Your task to perform on an android device: open a bookmark in the chrome app Image 0: 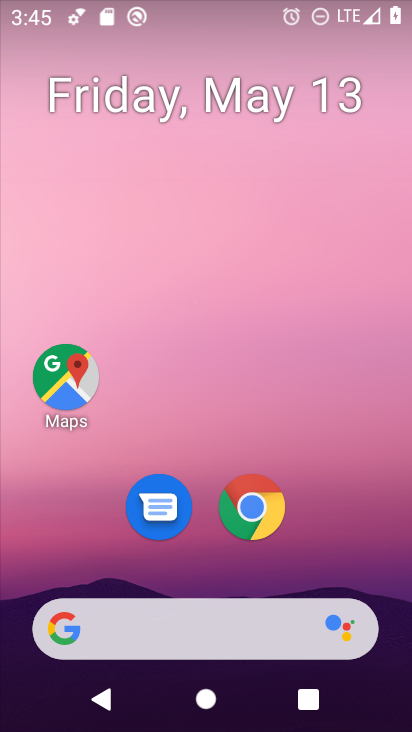
Step 0: click (274, 500)
Your task to perform on an android device: open a bookmark in the chrome app Image 1: 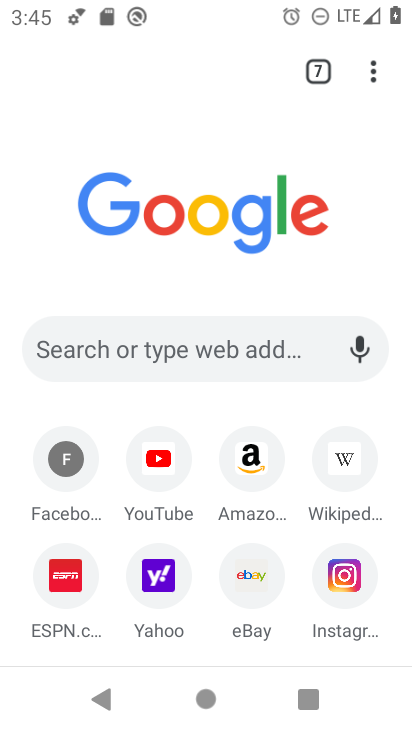
Step 1: click (386, 120)
Your task to perform on an android device: open a bookmark in the chrome app Image 2: 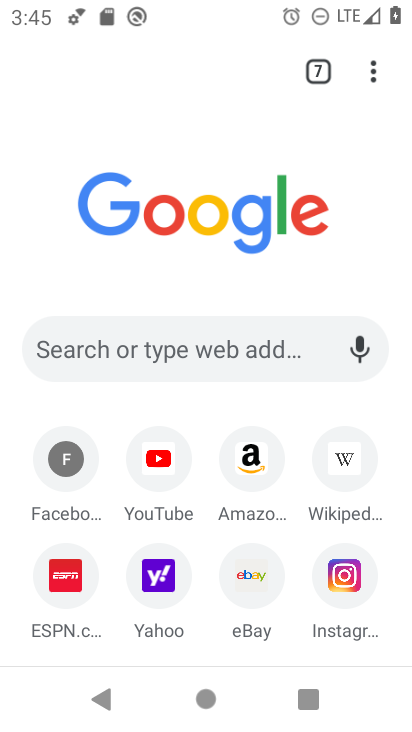
Step 2: click (368, 68)
Your task to perform on an android device: open a bookmark in the chrome app Image 3: 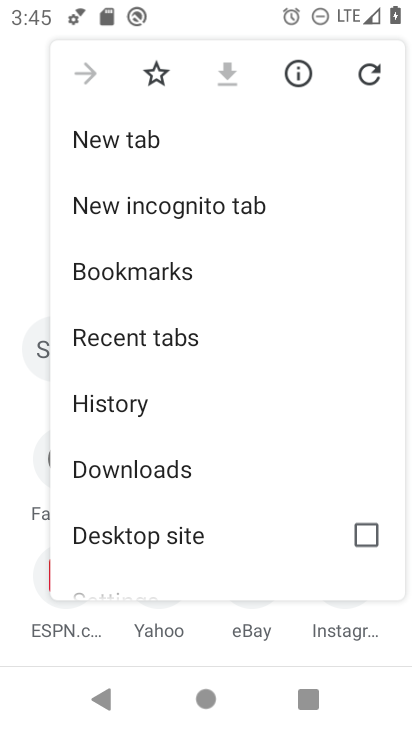
Step 3: click (199, 270)
Your task to perform on an android device: open a bookmark in the chrome app Image 4: 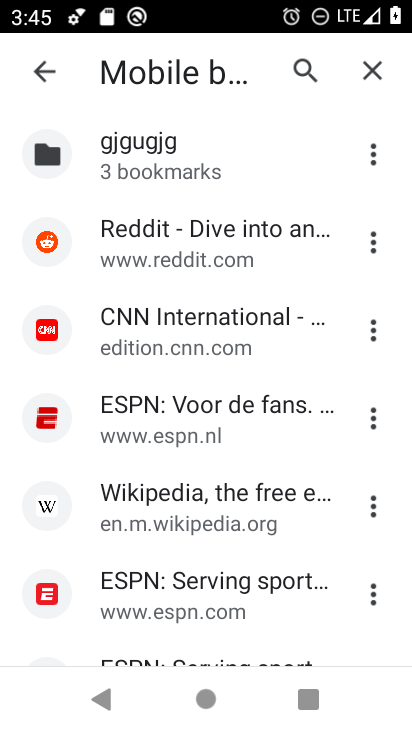
Step 4: task complete